Your task to perform on an android device: delete location history Image 0: 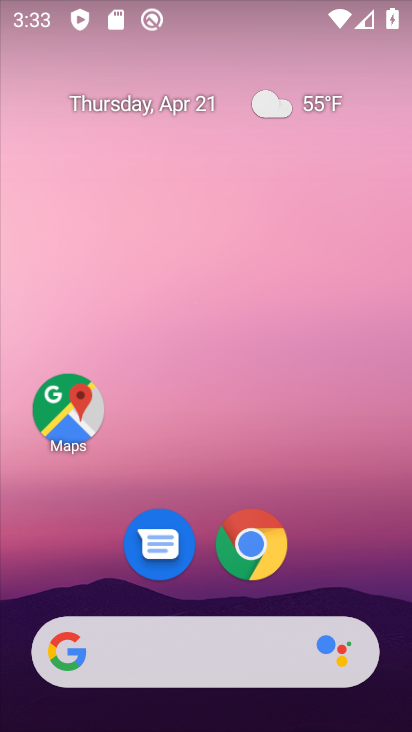
Step 0: drag from (227, 620) to (256, 161)
Your task to perform on an android device: delete location history Image 1: 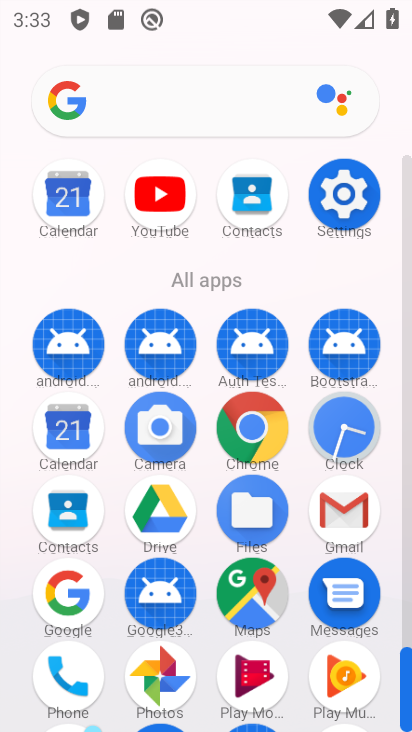
Step 1: click (263, 566)
Your task to perform on an android device: delete location history Image 2: 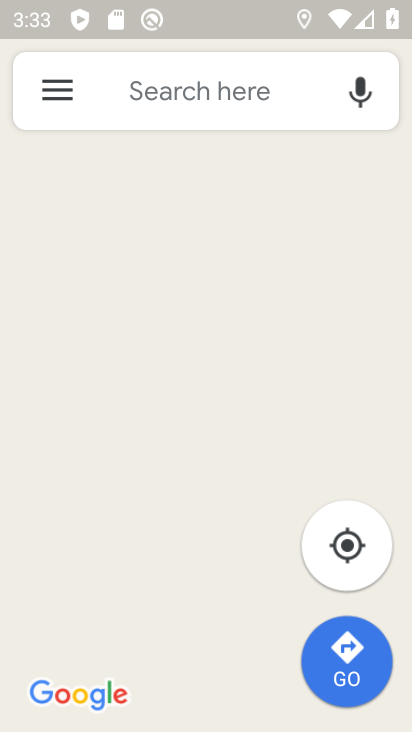
Step 2: click (66, 93)
Your task to perform on an android device: delete location history Image 3: 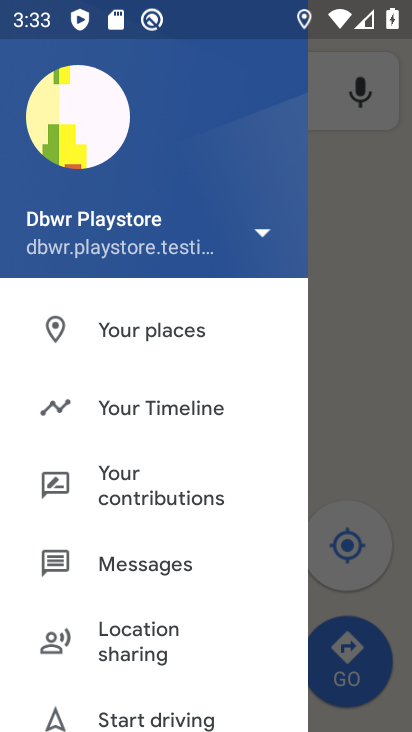
Step 3: click (146, 412)
Your task to perform on an android device: delete location history Image 4: 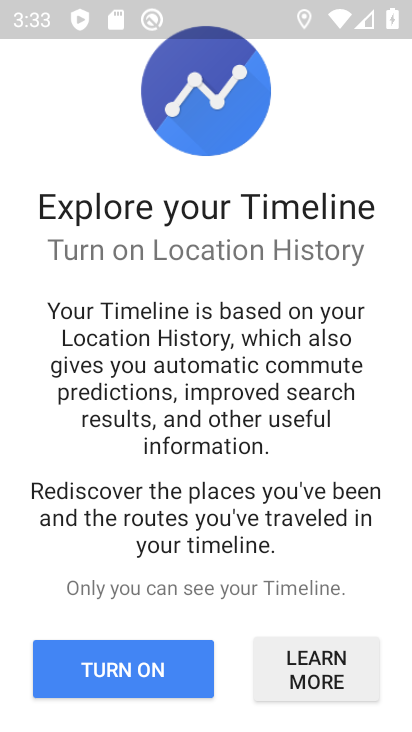
Step 4: click (131, 699)
Your task to perform on an android device: delete location history Image 5: 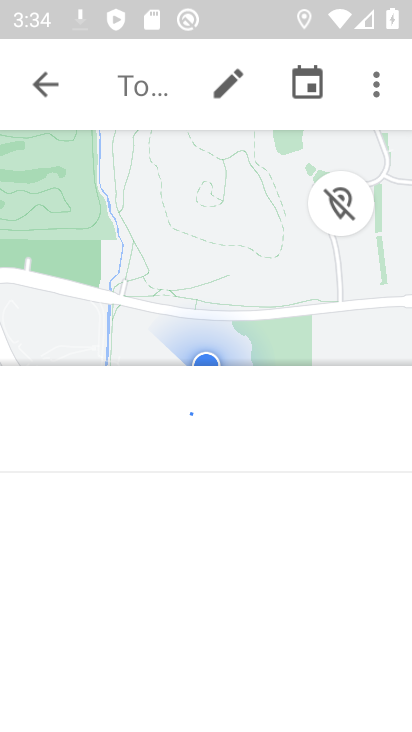
Step 5: click (376, 87)
Your task to perform on an android device: delete location history Image 6: 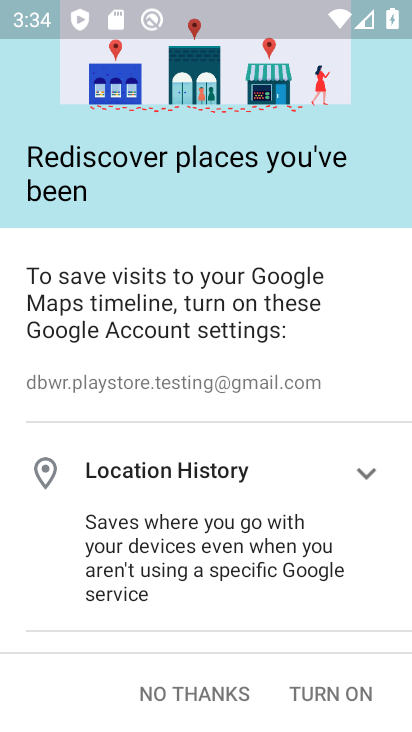
Step 6: click (318, 675)
Your task to perform on an android device: delete location history Image 7: 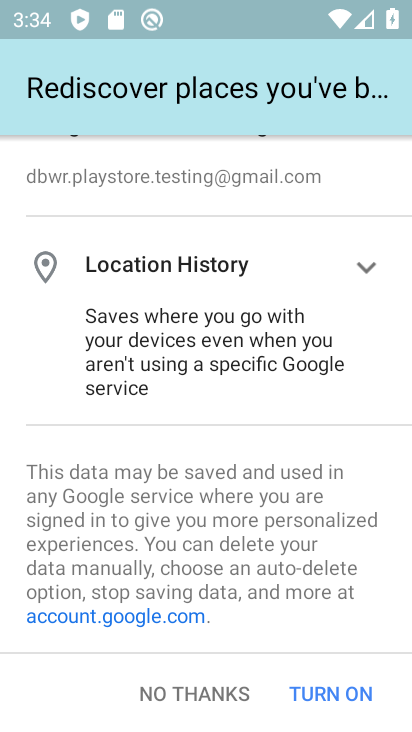
Step 7: click (347, 695)
Your task to perform on an android device: delete location history Image 8: 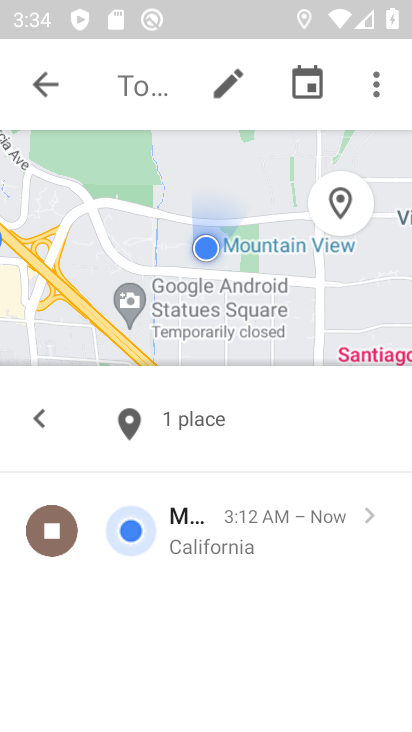
Step 8: click (373, 87)
Your task to perform on an android device: delete location history Image 9: 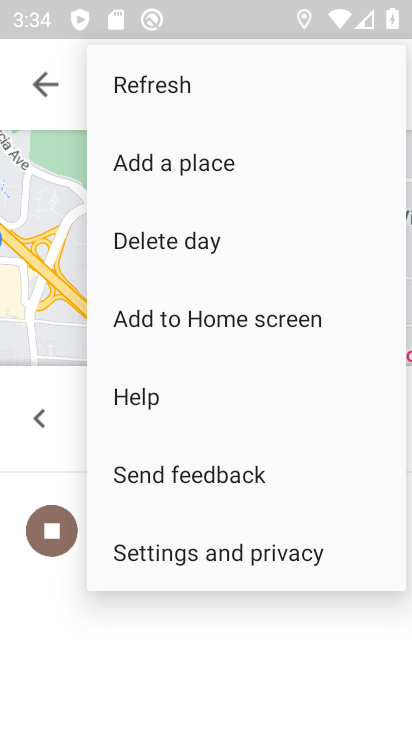
Step 9: drag from (203, 509) to (238, 149)
Your task to perform on an android device: delete location history Image 10: 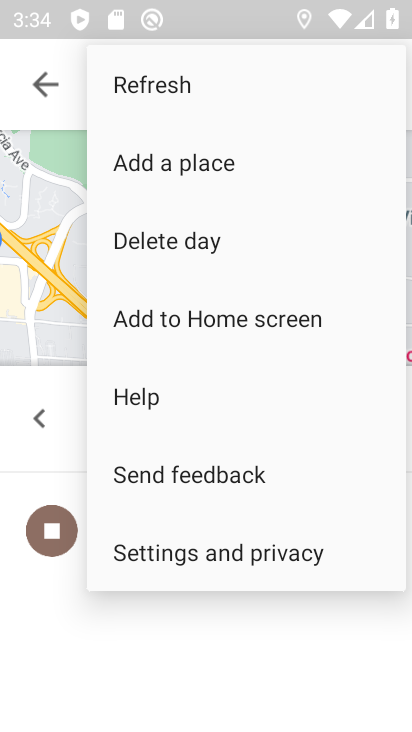
Step 10: click (205, 552)
Your task to perform on an android device: delete location history Image 11: 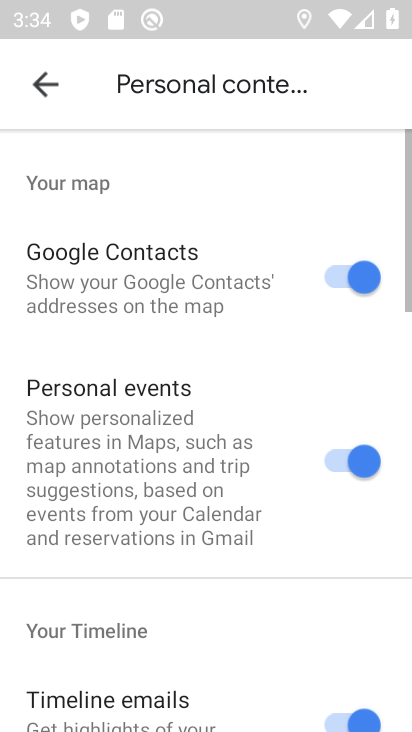
Step 11: drag from (234, 602) to (279, 23)
Your task to perform on an android device: delete location history Image 12: 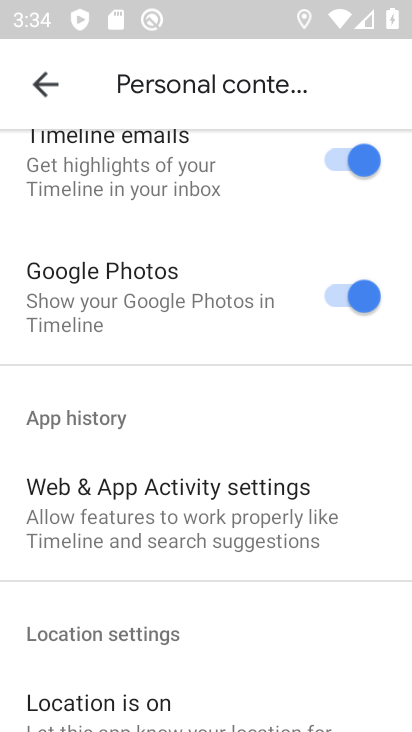
Step 12: drag from (245, 640) to (223, 0)
Your task to perform on an android device: delete location history Image 13: 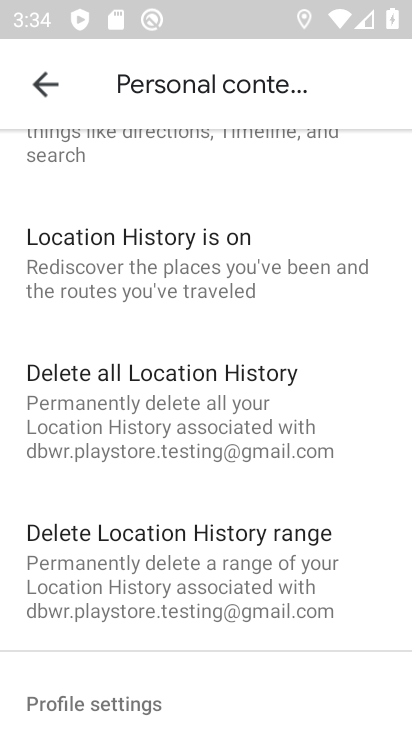
Step 13: click (223, 410)
Your task to perform on an android device: delete location history Image 14: 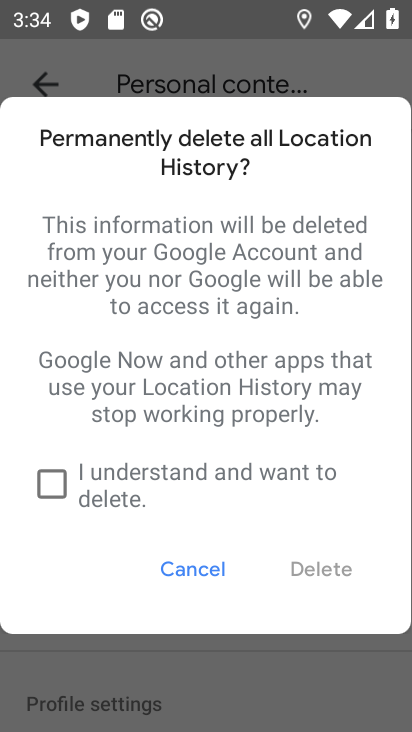
Step 14: click (52, 491)
Your task to perform on an android device: delete location history Image 15: 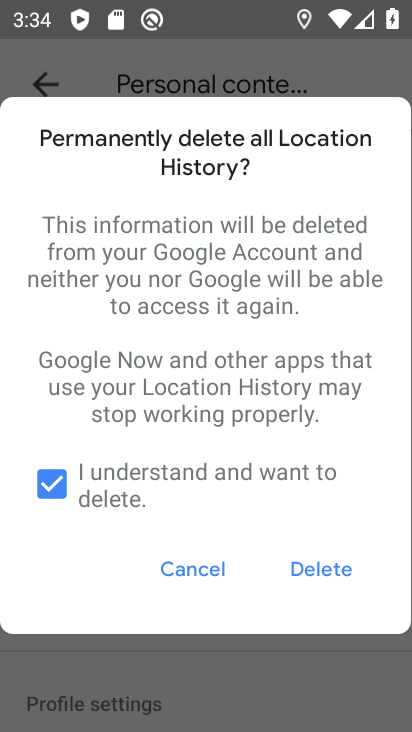
Step 15: click (303, 580)
Your task to perform on an android device: delete location history Image 16: 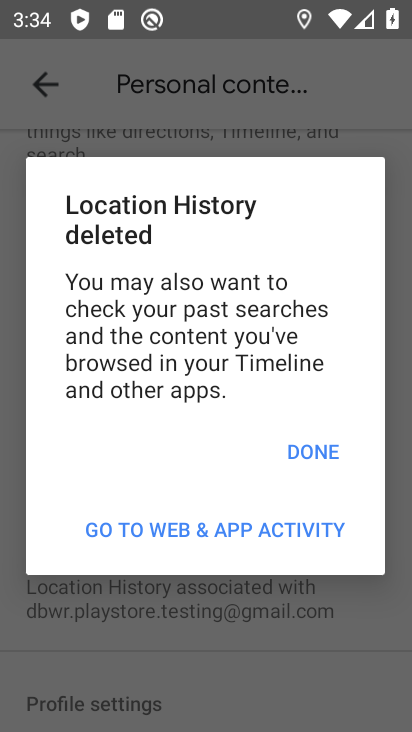
Step 16: task complete